Your task to perform on an android device: Open settings on Google Maps Image 0: 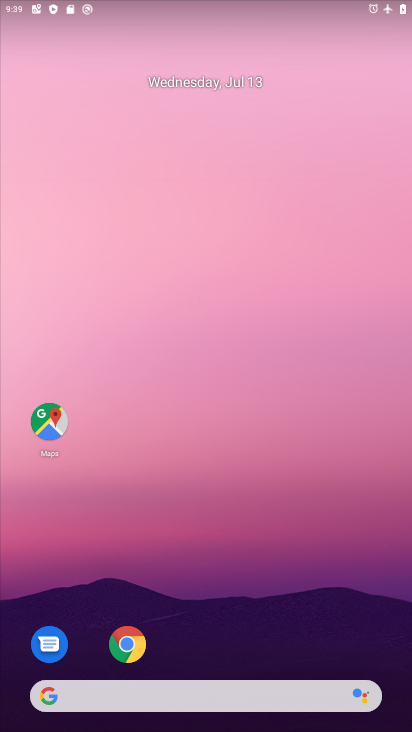
Step 0: drag from (207, 712) to (239, 39)
Your task to perform on an android device: Open settings on Google Maps Image 1: 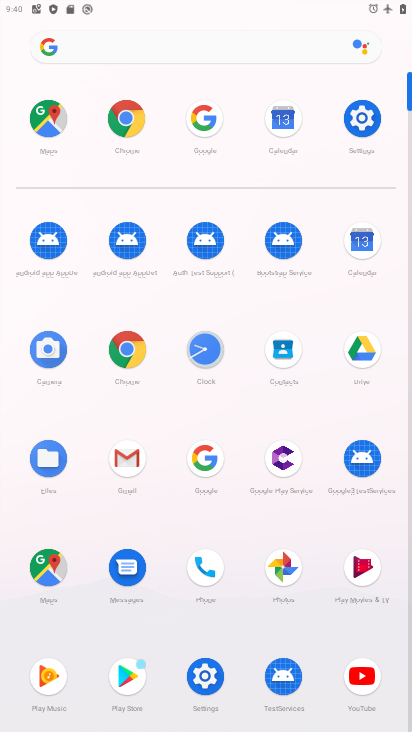
Step 1: click (45, 559)
Your task to perform on an android device: Open settings on Google Maps Image 2: 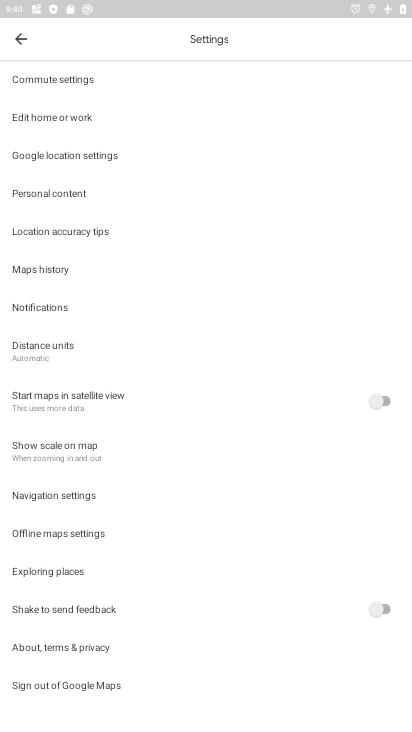
Step 2: task complete